Your task to perform on an android device: Go to CNN.com Image 0: 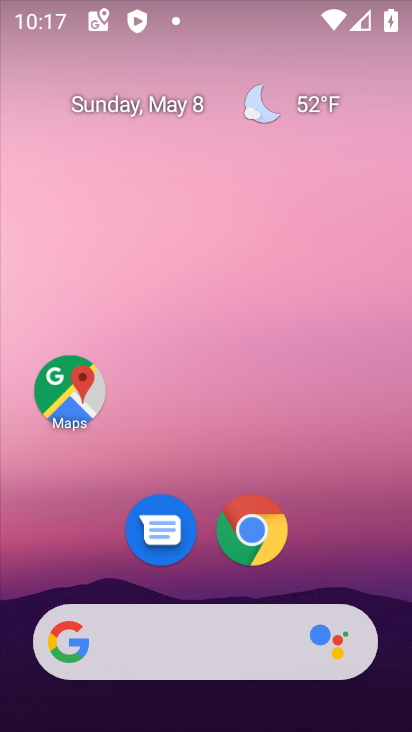
Step 0: drag from (346, 553) to (353, 149)
Your task to perform on an android device: Go to CNN.com Image 1: 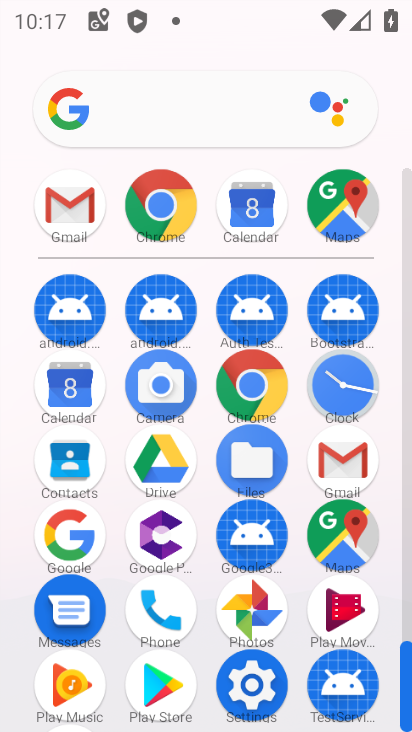
Step 1: click (252, 396)
Your task to perform on an android device: Go to CNN.com Image 2: 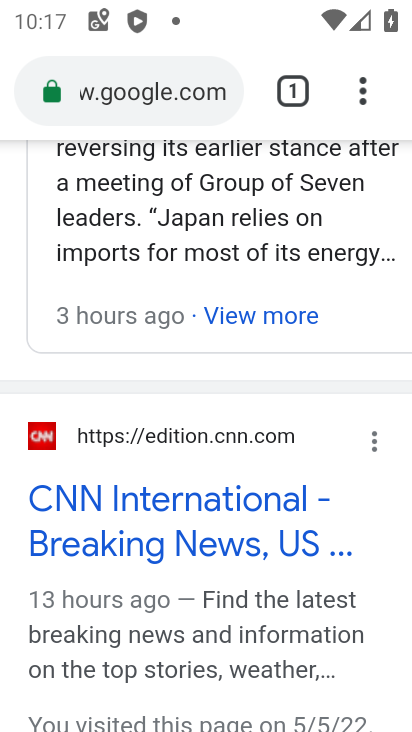
Step 2: click (158, 86)
Your task to perform on an android device: Go to CNN.com Image 3: 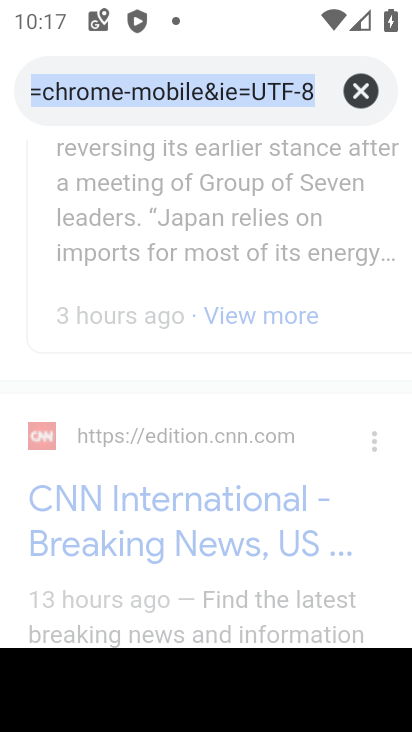
Step 3: click (162, 86)
Your task to perform on an android device: Go to CNN.com Image 4: 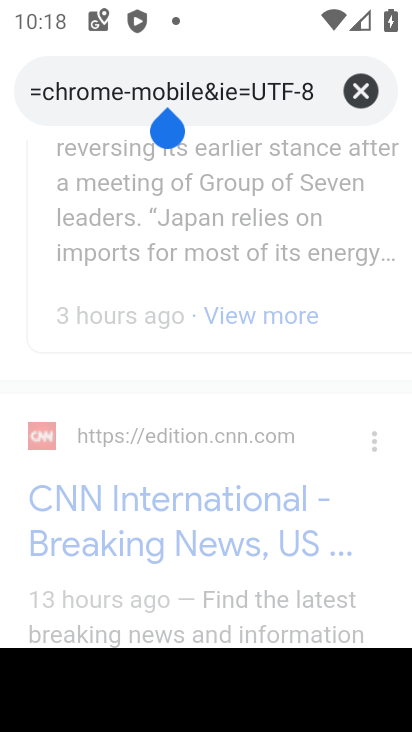
Step 4: click (361, 95)
Your task to perform on an android device: Go to CNN.com Image 5: 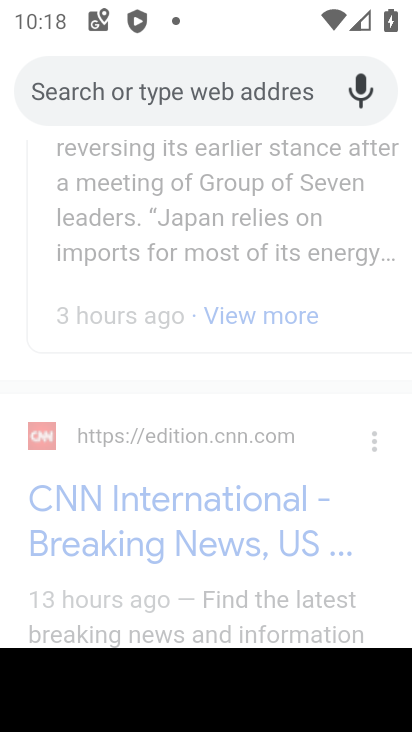
Step 5: type "cnn.com"
Your task to perform on an android device: Go to CNN.com Image 6: 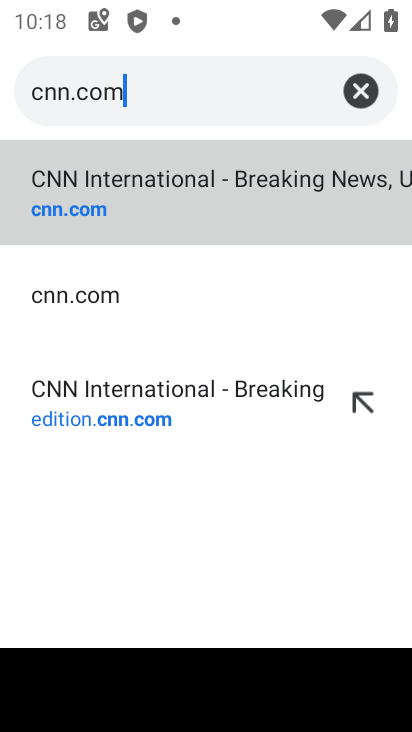
Step 6: click (142, 188)
Your task to perform on an android device: Go to CNN.com Image 7: 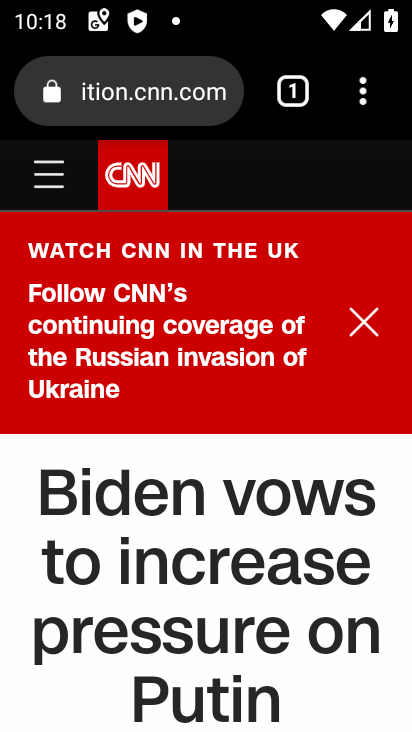
Step 7: task complete